Your task to perform on an android device: turn off smart reply in the gmail app Image 0: 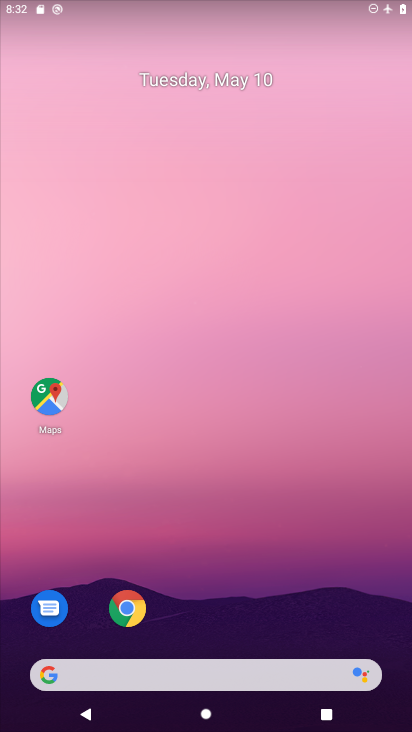
Step 0: drag from (263, 571) to (283, 305)
Your task to perform on an android device: turn off smart reply in the gmail app Image 1: 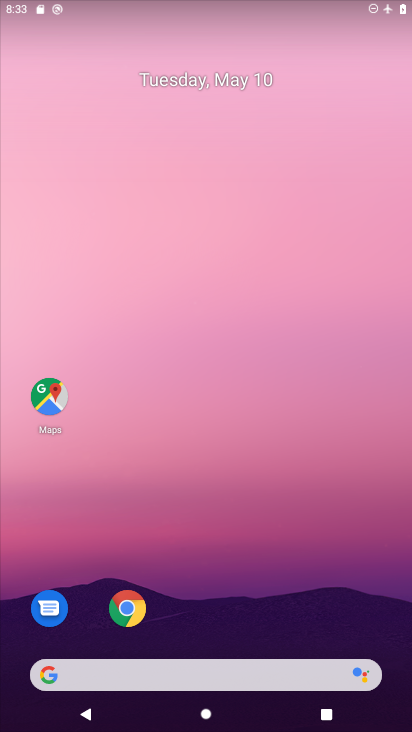
Step 1: drag from (278, 510) to (278, 240)
Your task to perform on an android device: turn off smart reply in the gmail app Image 2: 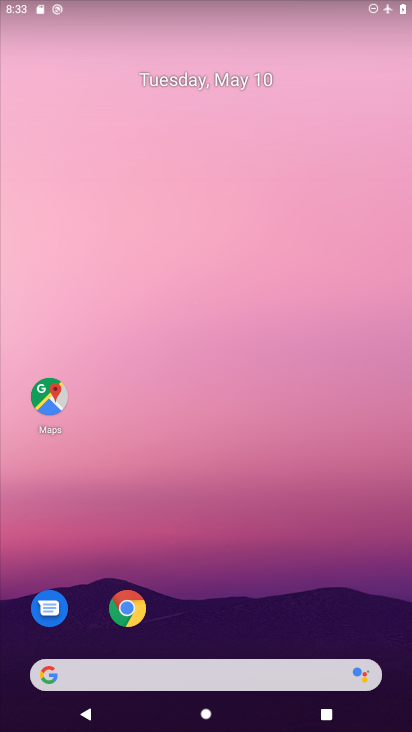
Step 2: drag from (263, 578) to (263, 232)
Your task to perform on an android device: turn off smart reply in the gmail app Image 3: 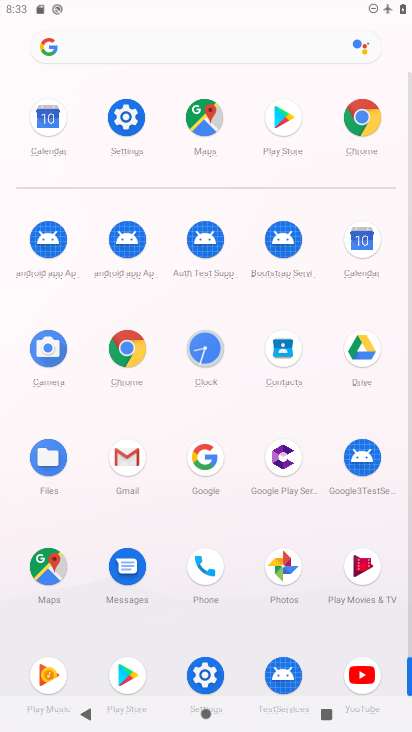
Step 3: click (130, 450)
Your task to perform on an android device: turn off smart reply in the gmail app Image 4: 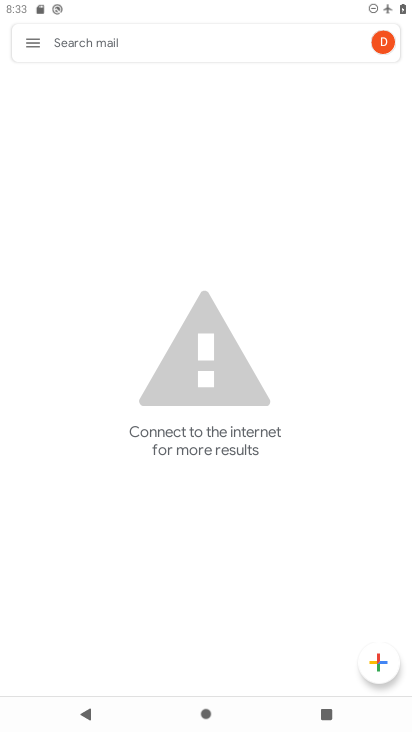
Step 4: click (33, 41)
Your task to perform on an android device: turn off smart reply in the gmail app Image 5: 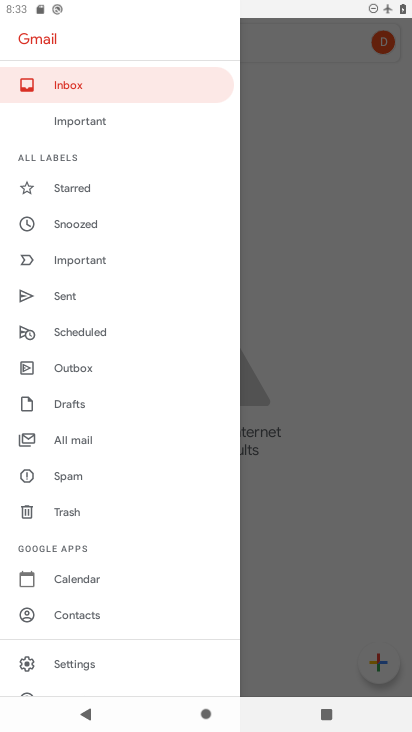
Step 5: click (81, 660)
Your task to perform on an android device: turn off smart reply in the gmail app Image 6: 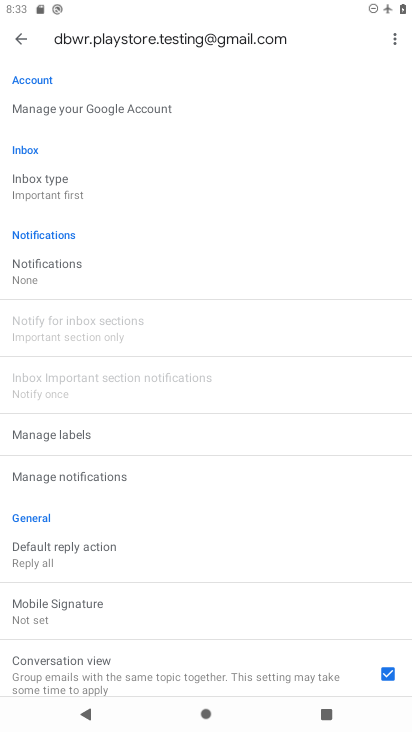
Step 6: drag from (120, 586) to (205, 246)
Your task to perform on an android device: turn off smart reply in the gmail app Image 7: 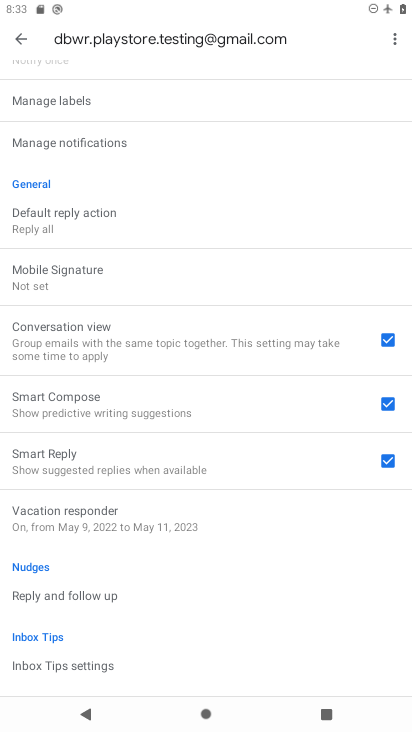
Step 7: click (386, 456)
Your task to perform on an android device: turn off smart reply in the gmail app Image 8: 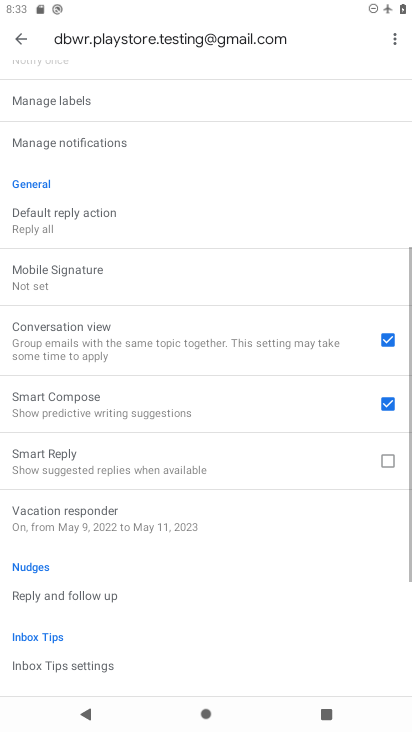
Step 8: task complete